Your task to perform on an android device: clear all cookies in the chrome app Image 0: 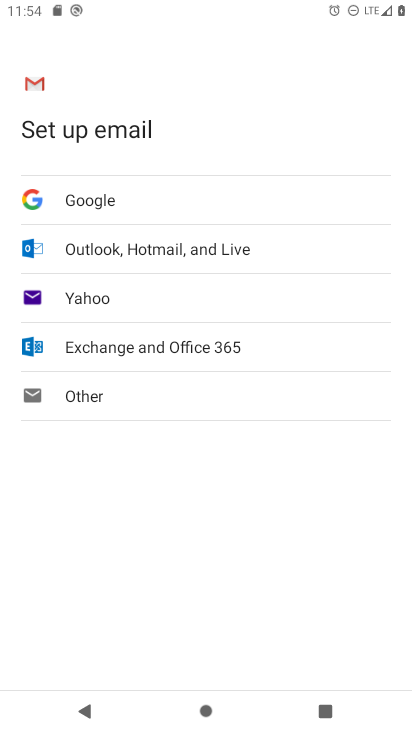
Step 0: press home button
Your task to perform on an android device: clear all cookies in the chrome app Image 1: 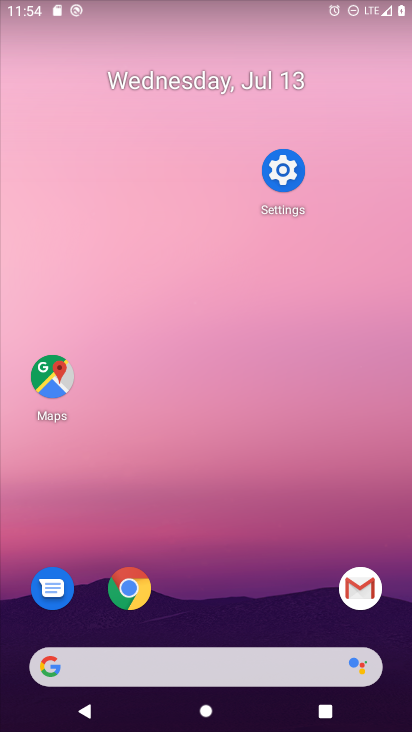
Step 1: drag from (223, 672) to (237, 202)
Your task to perform on an android device: clear all cookies in the chrome app Image 2: 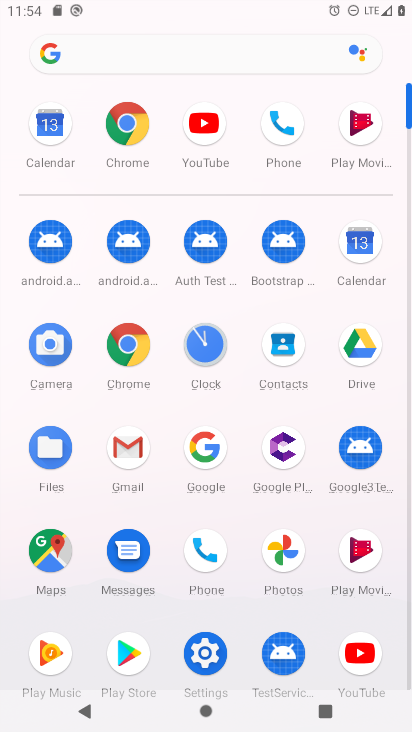
Step 2: click (130, 131)
Your task to perform on an android device: clear all cookies in the chrome app Image 3: 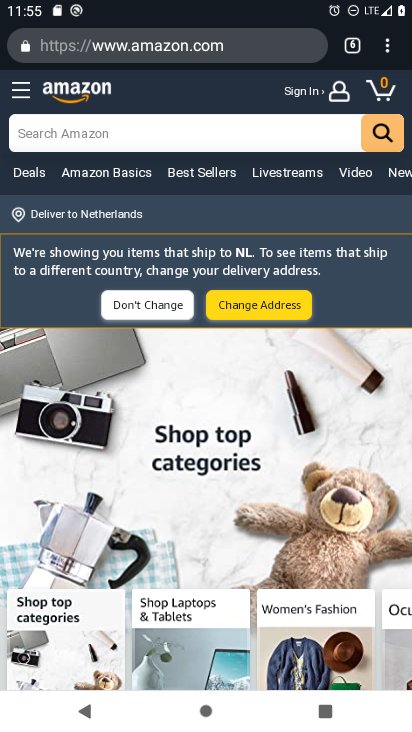
Step 3: click (385, 57)
Your task to perform on an android device: clear all cookies in the chrome app Image 4: 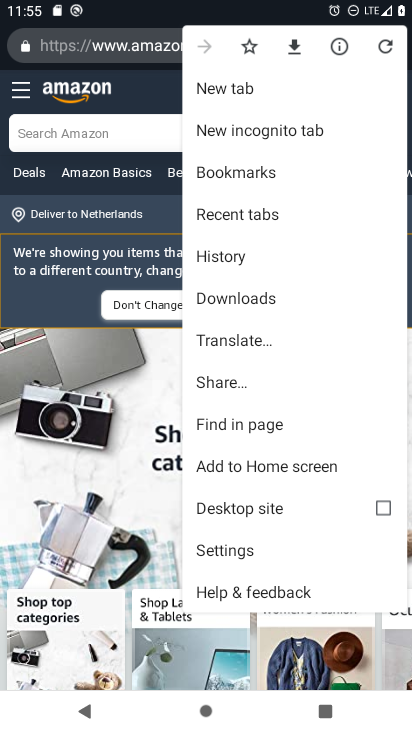
Step 4: click (219, 548)
Your task to perform on an android device: clear all cookies in the chrome app Image 5: 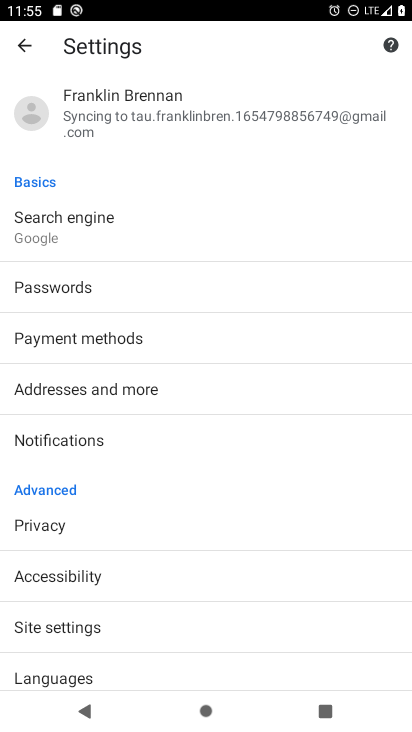
Step 5: click (47, 531)
Your task to perform on an android device: clear all cookies in the chrome app Image 6: 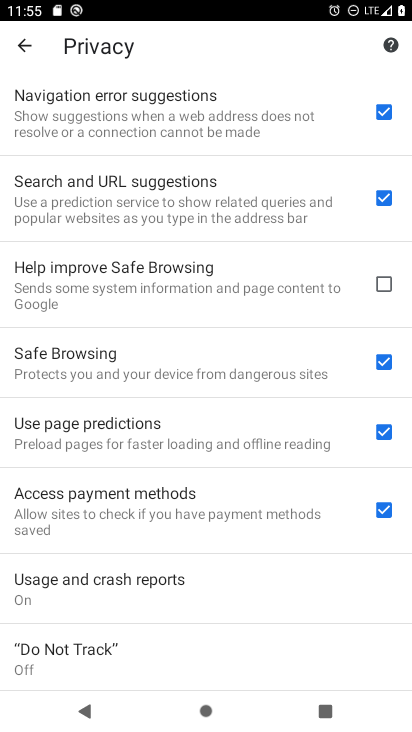
Step 6: drag from (90, 637) to (124, 338)
Your task to perform on an android device: clear all cookies in the chrome app Image 7: 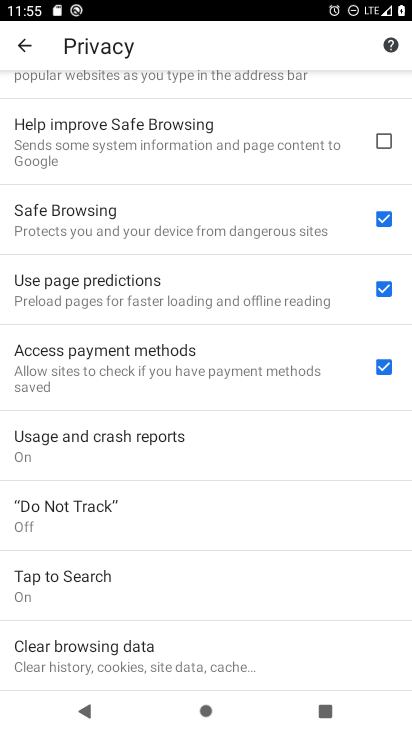
Step 7: click (60, 644)
Your task to perform on an android device: clear all cookies in the chrome app Image 8: 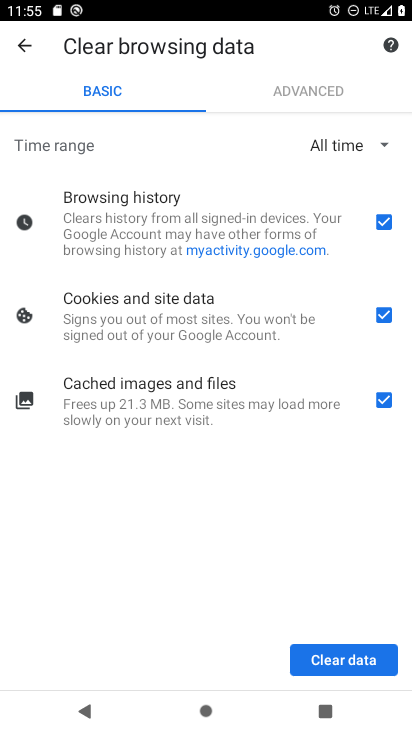
Step 8: click (339, 656)
Your task to perform on an android device: clear all cookies in the chrome app Image 9: 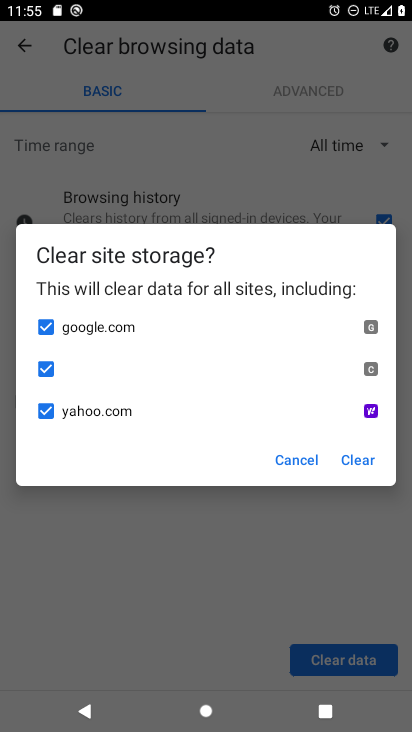
Step 9: click (363, 463)
Your task to perform on an android device: clear all cookies in the chrome app Image 10: 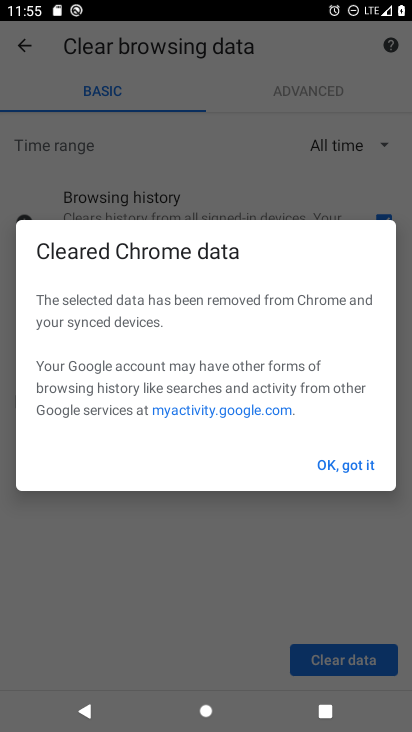
Step 10: task complete